Your task to perform on an android device: turn off translation in the chrome app Image 0: 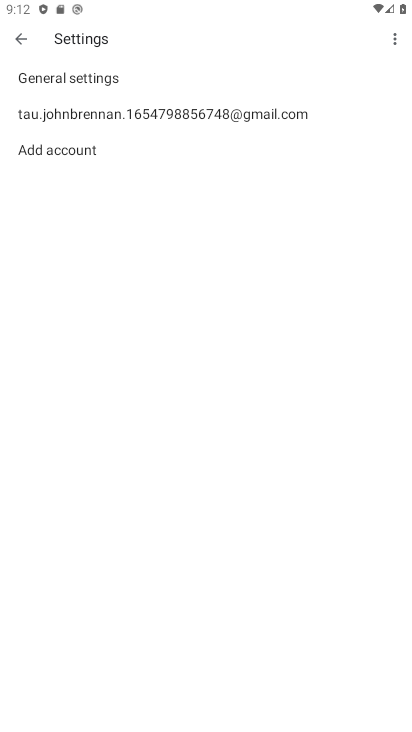
Step 0: press home button
Your task to perform on an android device: turn off translation in the chrome app Image 1: 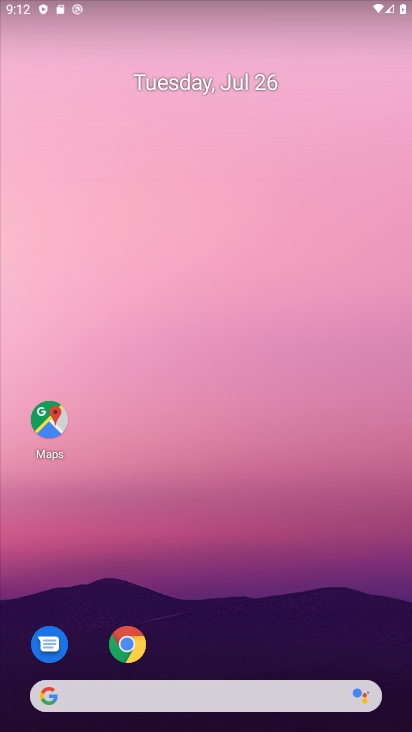
Step 1: drag from (228, 637) to (246, 110)
Your task to perform on an android device: turn off translation in the chrome app Image 2: 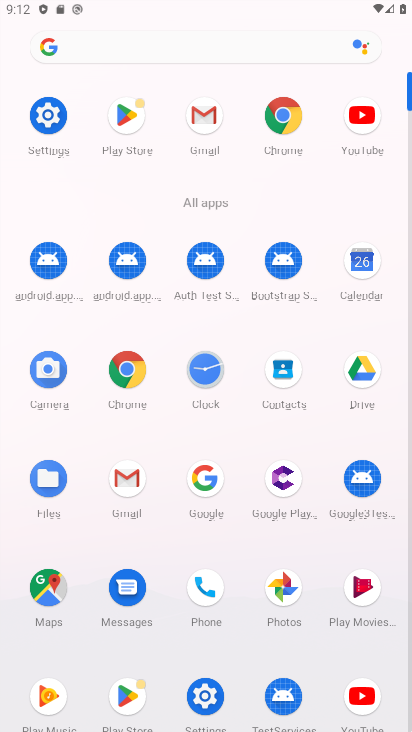
Step 2: click (137, 373)
Your task to perform on an android device: turn off translation in the chrome app Image 3: 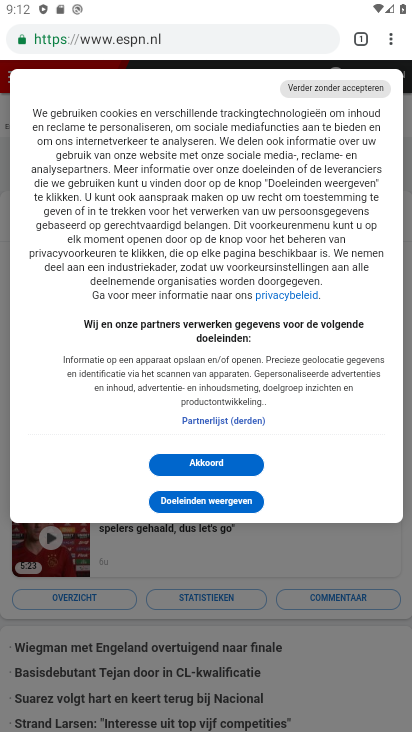
Step 3: click (390, 36)
Your task to perform on an android device: turn off translation in the chrome app Image 4: 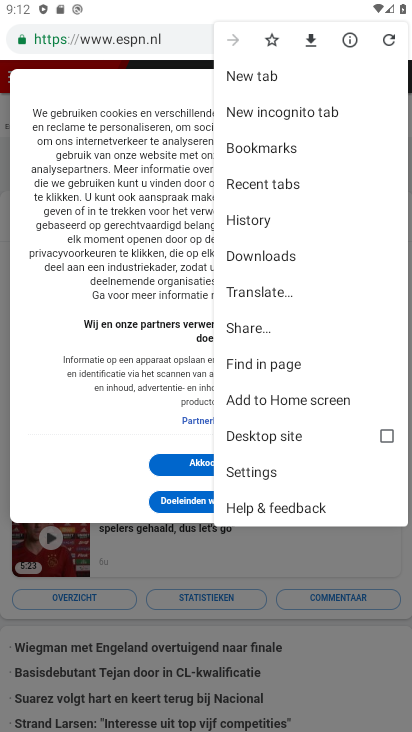
Step 4: click (259, 465)
Your task to perform on an android device: turn off translation in the chrome app Image 5: 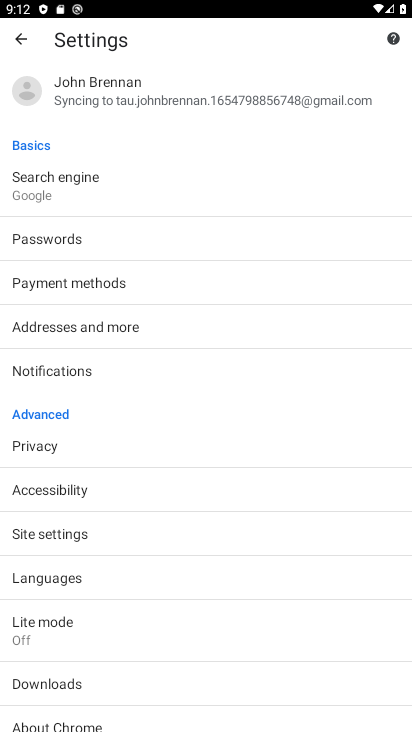
Step 5: click (76, 585)
Your task to perform on an android device: turn off translation in the chrome app Image 6: 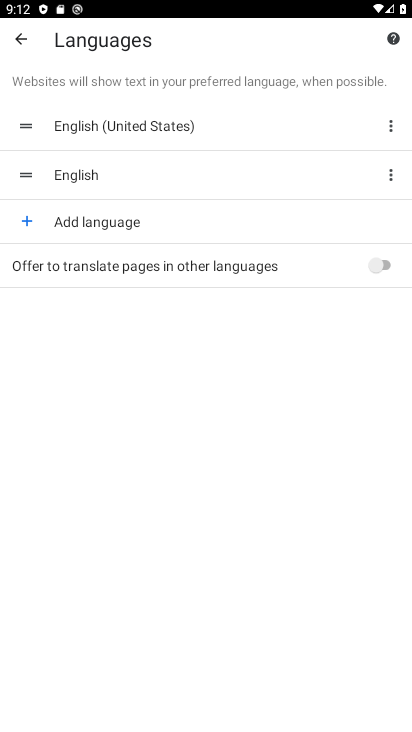
Step 6: task complete